Your task to perform on an android device: move a message to another label in the gmail app Image 0: 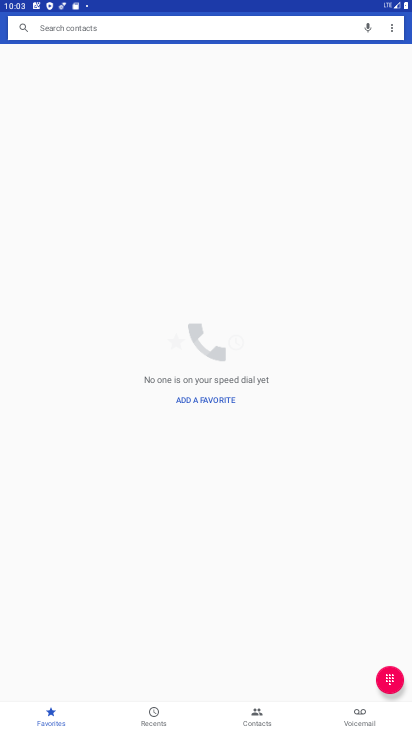
Step 0: press home button
Your task to perform on an android device: move a message to another label in the gmail app Image 1: 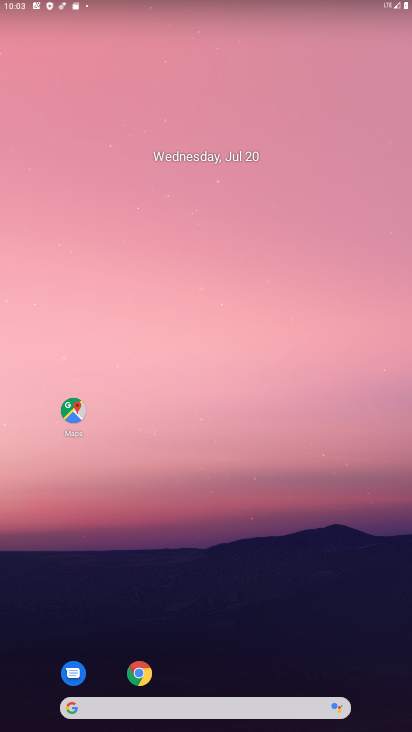
Step 1: drag from (172, 707) to (182, 256)
Your task to perform on an android device: move a message to another label in the gmail app Image 2: 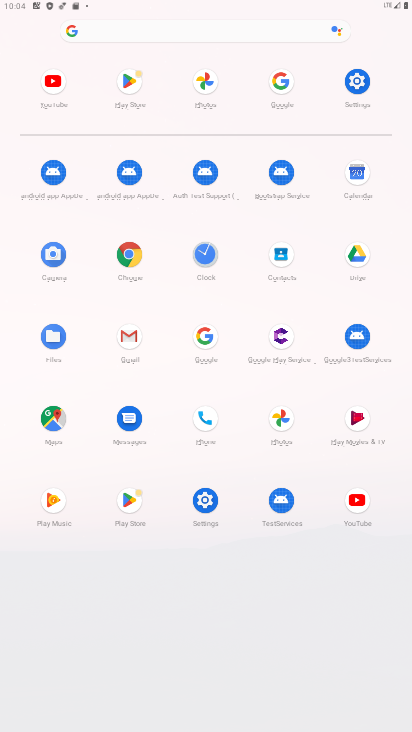
Step 2: click (128, 333)
Your task to perform on an android device: move a message to another label in the gmail app Image 3: 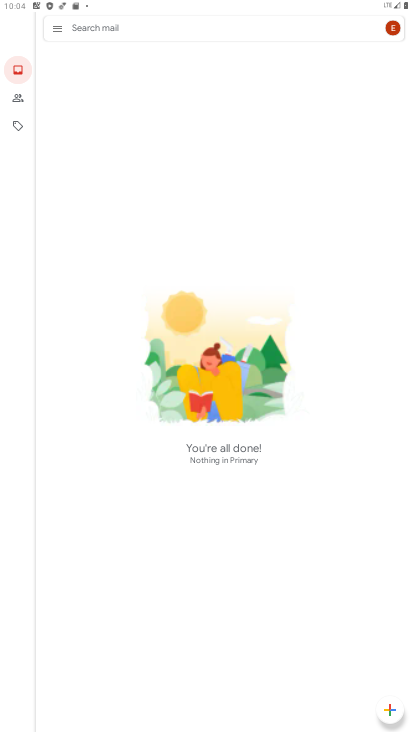
Step 3: click (56, 32)
Your task to perform on an android device: move a message to another label in the gmail app Image 4: 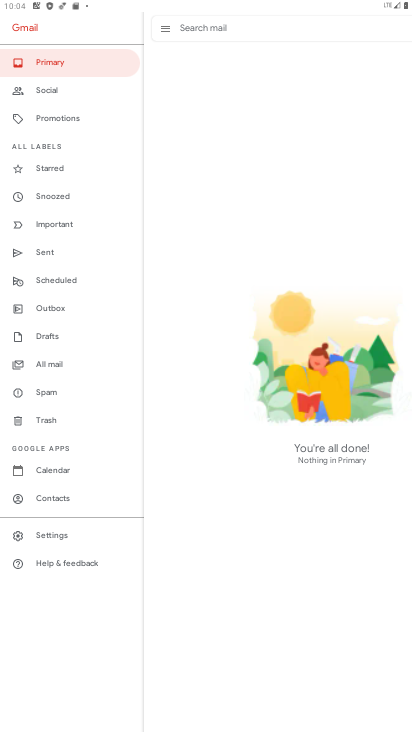
Step 4: click (48, 364)
Your task to perform on an android device: move a message to another label in the gmail app Image 5: 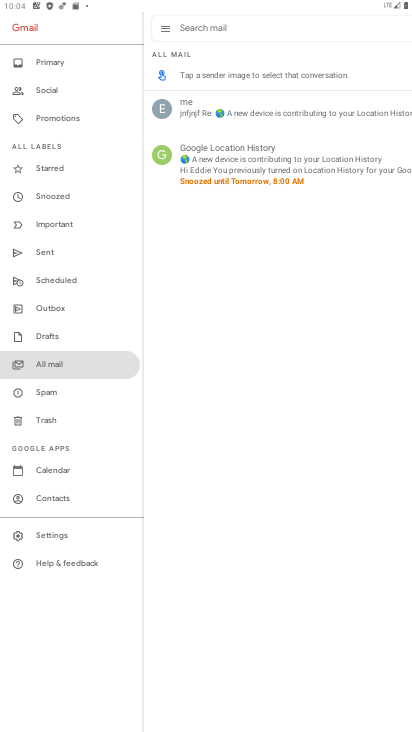
Step 5: click (247, 108)
Your task to perform on an android device: move a message to another label in the gmail app Image 6: 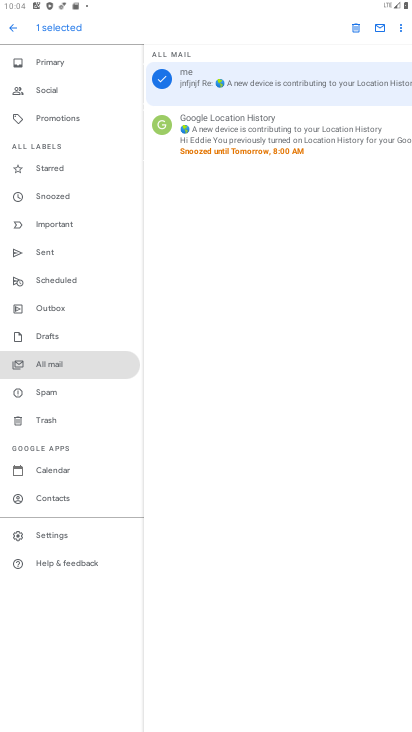
Step 6: click (401, 29)
Your task to perform on an android device: move a message to another label in the gmail app Image 7: 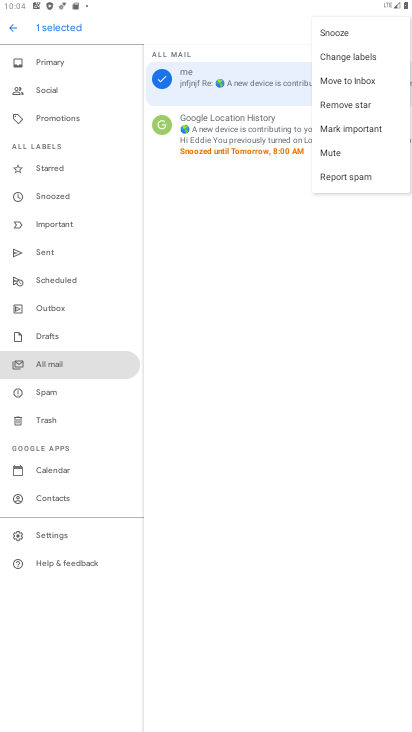
Step 7: click (365, 83)
Your task to perform on an android device: move a message to another label in the gmail app Image 8: 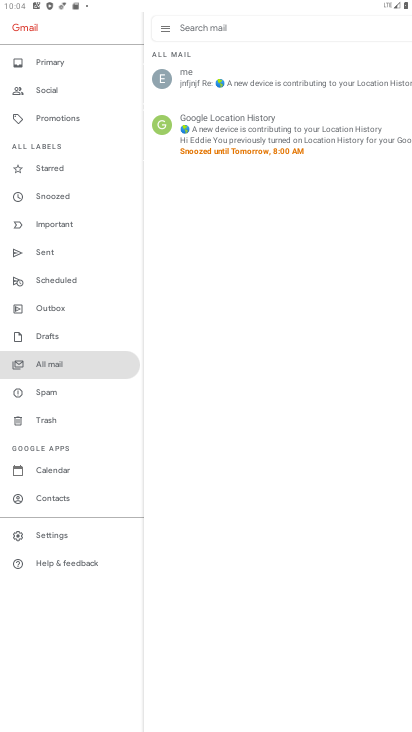
Step 8: task complete